Your task to perform on an android device: Search for rayovac triple a on ebay, select the first entry, add it to the cart, then select checkout. Image 0: 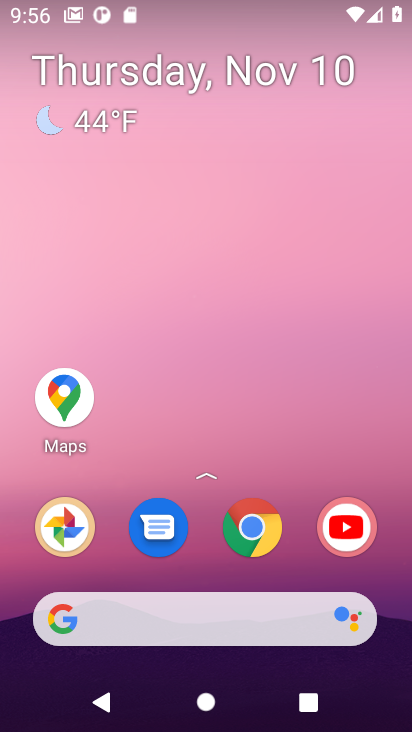
Step 0: drag from (157, 549) to (160, 1)
Your task to perform on an android device: Search for rayovac triple a on ebay, select the first entry, add it to the cart, then select checkout. Image 1: 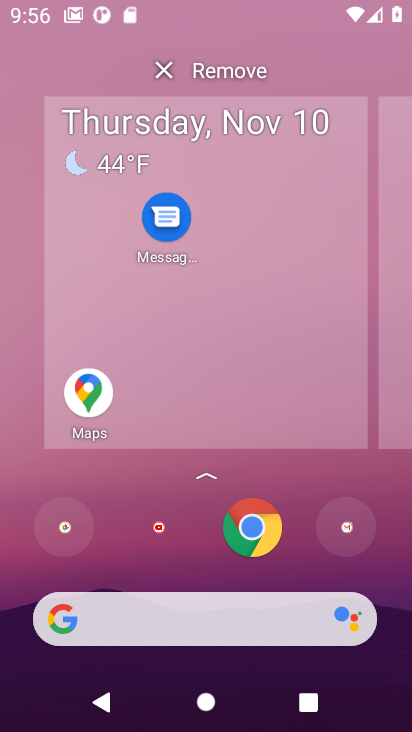
Step 1: click (333, 329)
Your task to perform on an android device: Search for rayovac triple a on ebay, select the first entry, add it to the cart, then select checkout. Image 2: 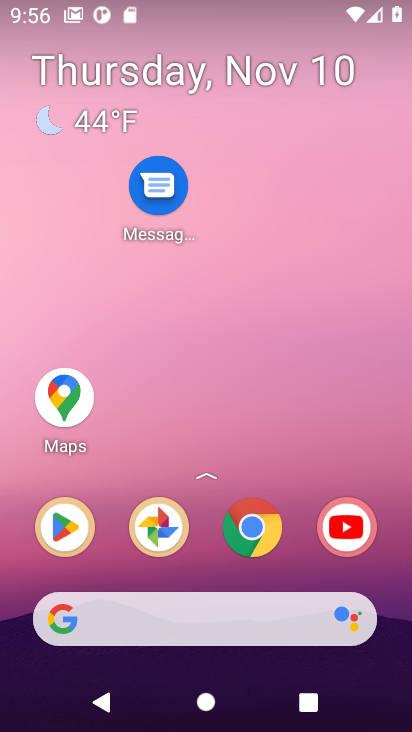
Step 2: drag from (192, 589) to (159, 8)
Your task to perform on an android device: Search for rayovac triple a on ebay, select the first entry, add it to the cart, then select checkout. Image 3: 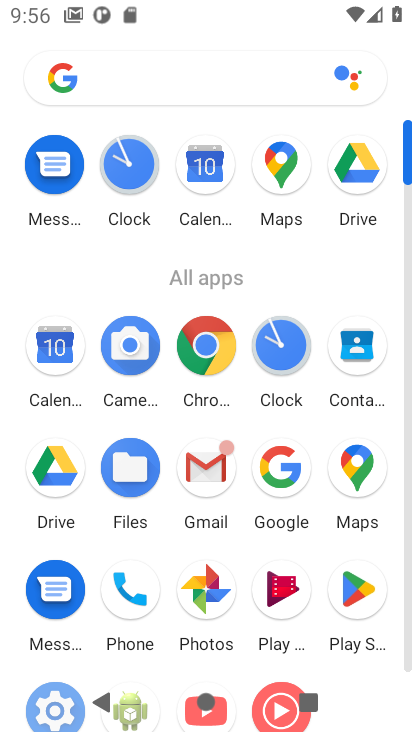
Step 3: click (211, 345)
Your task to perform on an android device: Search for rayovac triple a on ebay, select the first entry, add it to the cart, then select checkout. Image 4: 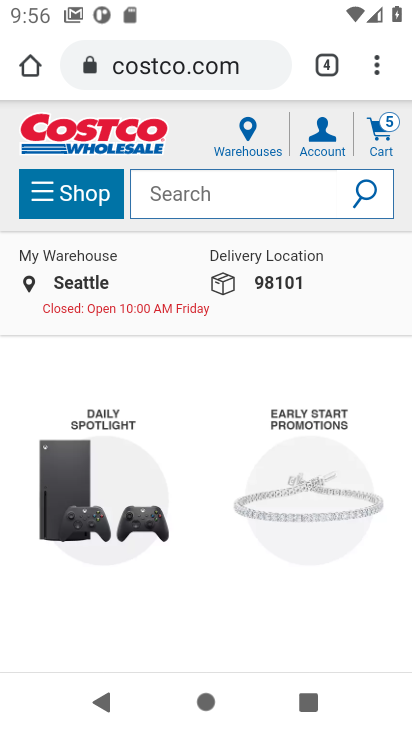
Step 4: click (149, 80)
Your task to perform on an android device: Search for rayovac triple a on ebay, select the first entry, add it to the cart, then select checkout. Image 5: 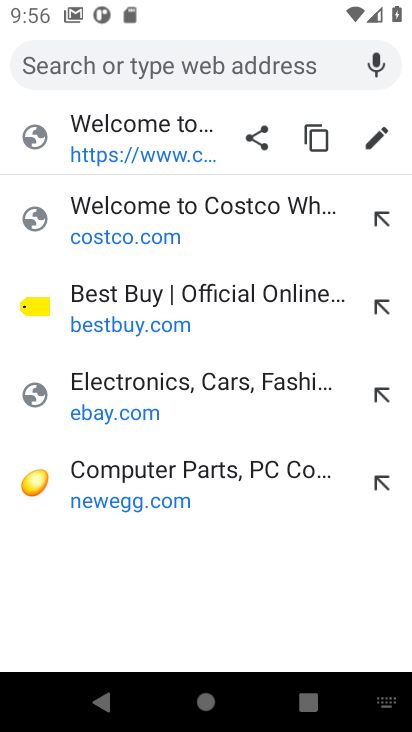
Step 5: type "ebay"
Your task to perform on an android device: Search for rayovac triple a on ebay, select the first entry, add it to the cart, then select checkout. Image 6: 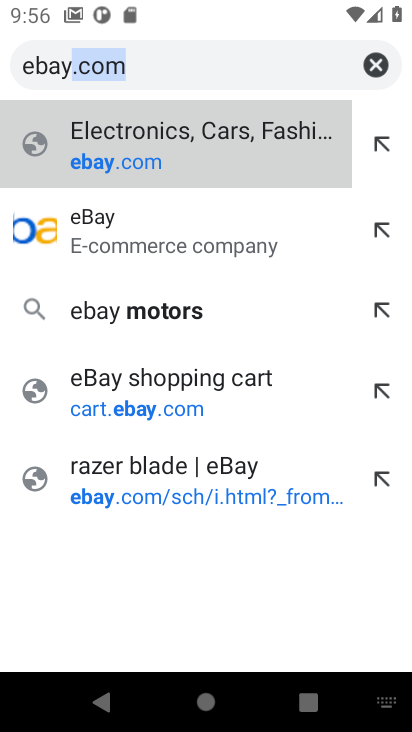
Step 6: press enter
Your task to perform on an android device: Search for rayovac triple a on ebay, select the first entry, add it to the cart, then select checkout. Image 7: 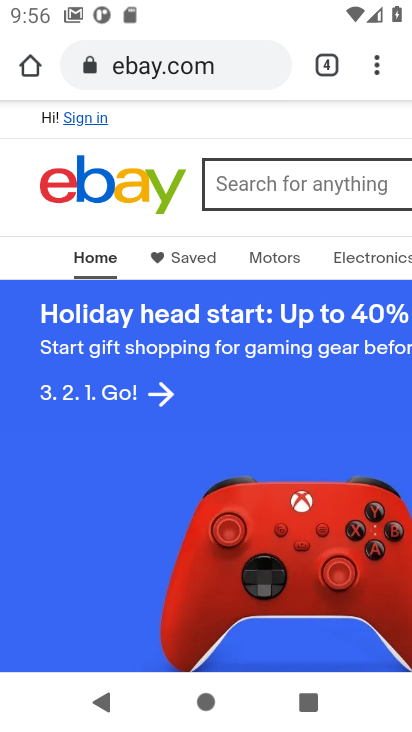
Step 7: click (299, 177)
Your task to perform on an android device: Search for rayovac triple a on ebay, select the first entry, add it to the cart, then select checkout. Image 8: 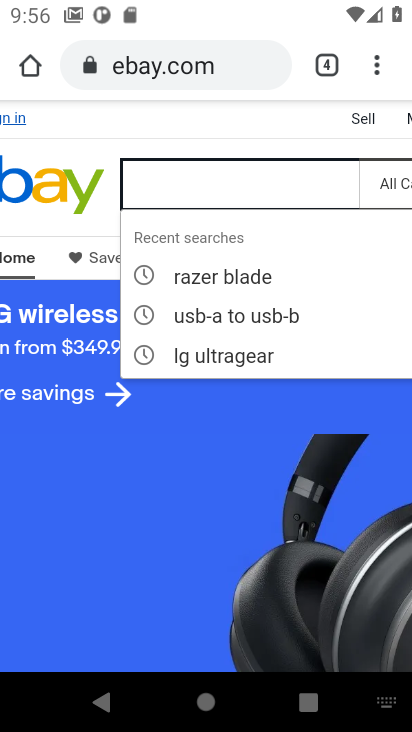
Step 8: type "rayovac triple "
Your task to perform on an android device: Search for rayovac triple a on ebay, select the first entry, add it to the cart, then select checkout. Image 9: 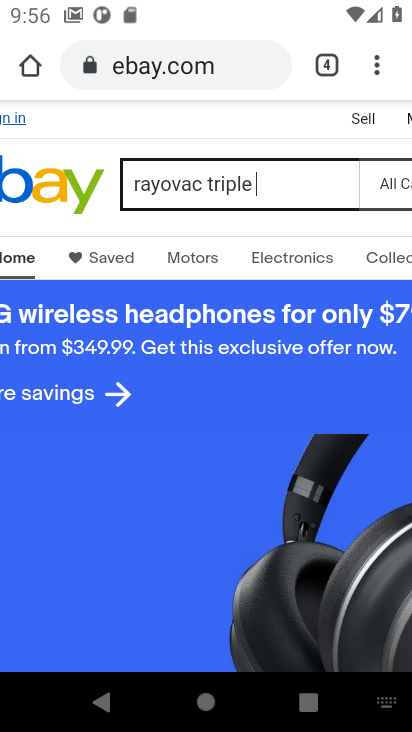
Step 9: press enter
Your task to perform on an android device: Search for rayovac triple a on ebay, select the first entry, add it to the cart, then select checkout. Image 10: 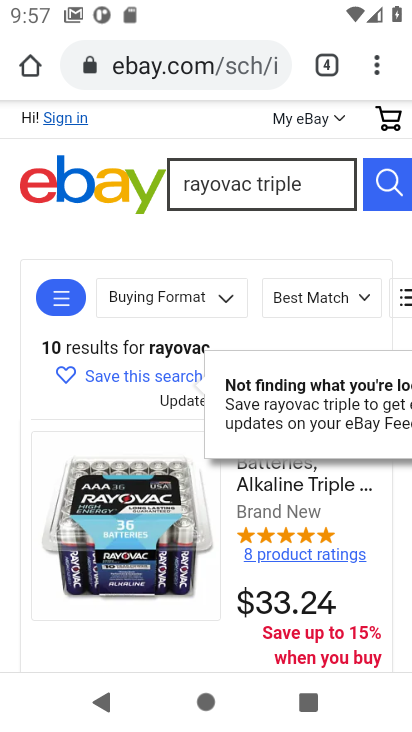
Step 10: click (289, 477)
Your task to perform on an android device: Search for rayovac triple a on ebay, select the first entry, add it to the cart, then select checkout. Image 11: 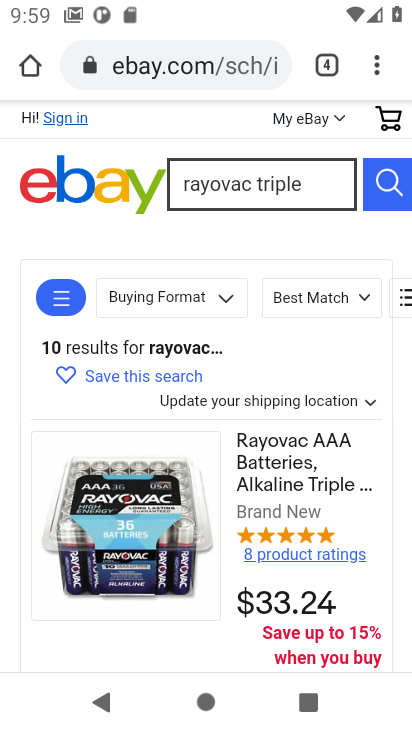
Step 11: click (269, 454)
Your task to perform on an android device: Search for rayovac triple a on ebay, select the first entry, add it to the cart, then select checkout. Image 12: 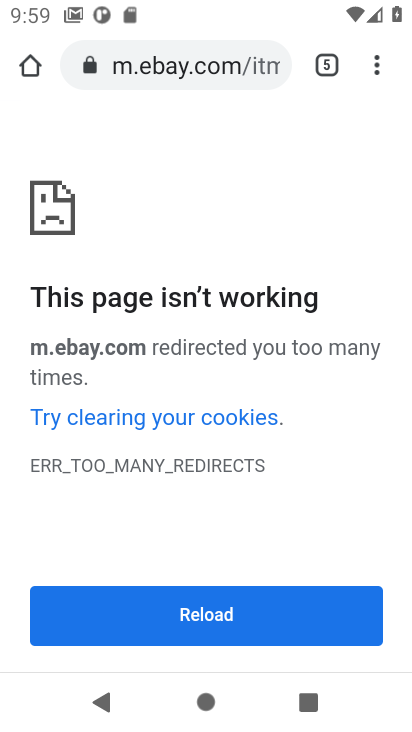
Step 12: click (223, 615)
Your task to perform on an android device: Search for rayovac triple a on ebay, select the first entry, add it to the cart, then select checkout. Image 13: 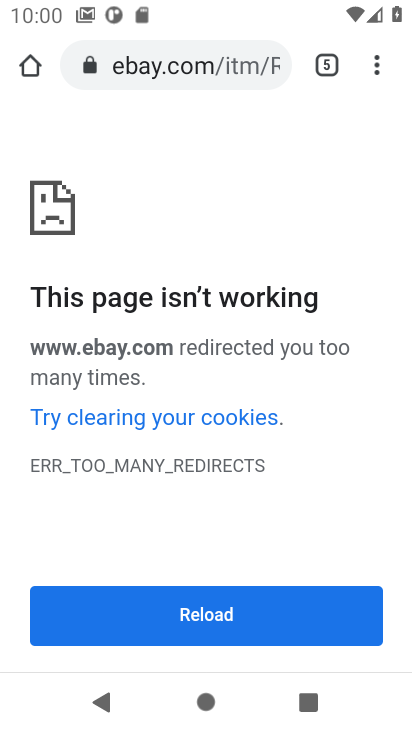
Step 13: click (223, 613)
Your task to perform on an android device: Search for rayovac triple a on ebay, select the first entry, add it to the cart, then select checkout. Image 14: 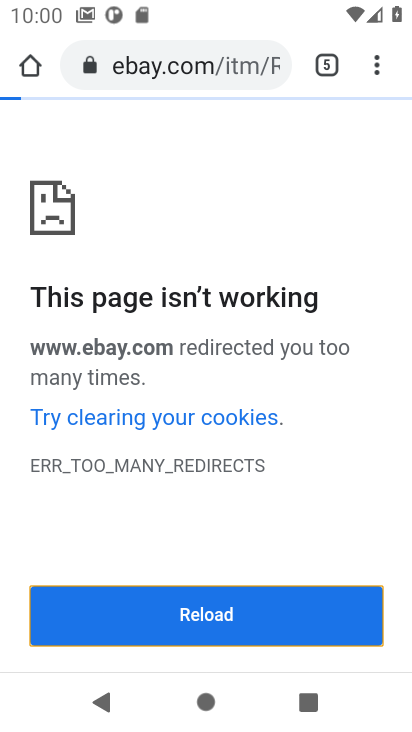
Step 14: task complete